Your task to perform on an android device: Open settings Image 0: 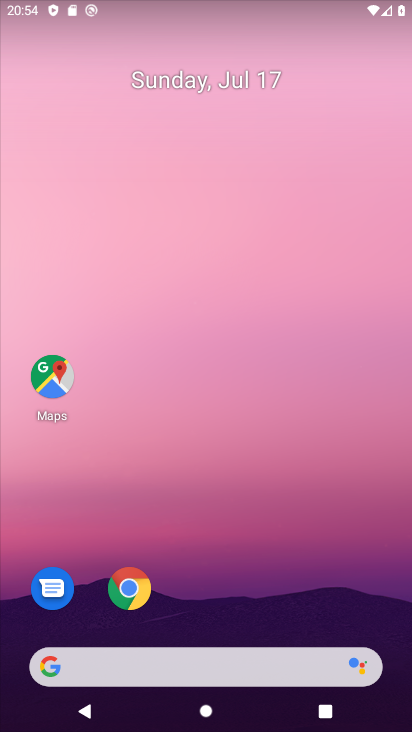
Step 0: drag from (273, 522) to (321, 85)
Your task to perform on an android device: Open settings Image 1: 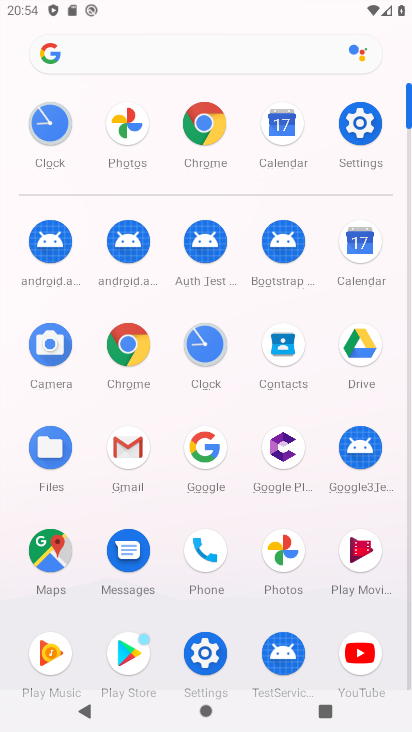
Step 1: click (349, 135)
Your task to perform on an android device: Open settings Image 2: 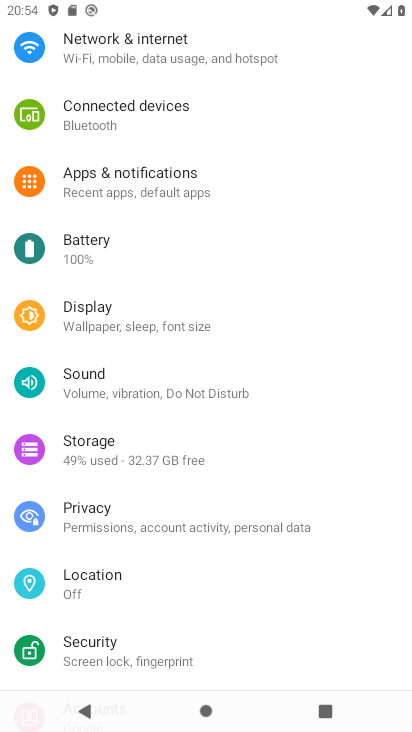
Step 2: task complete